Your task to perform on an android device: Clear the shopping cart on bestbuy.com. Add usb-a to usb-b to the cart on bestbuy.com, then select checkout. Image 0: 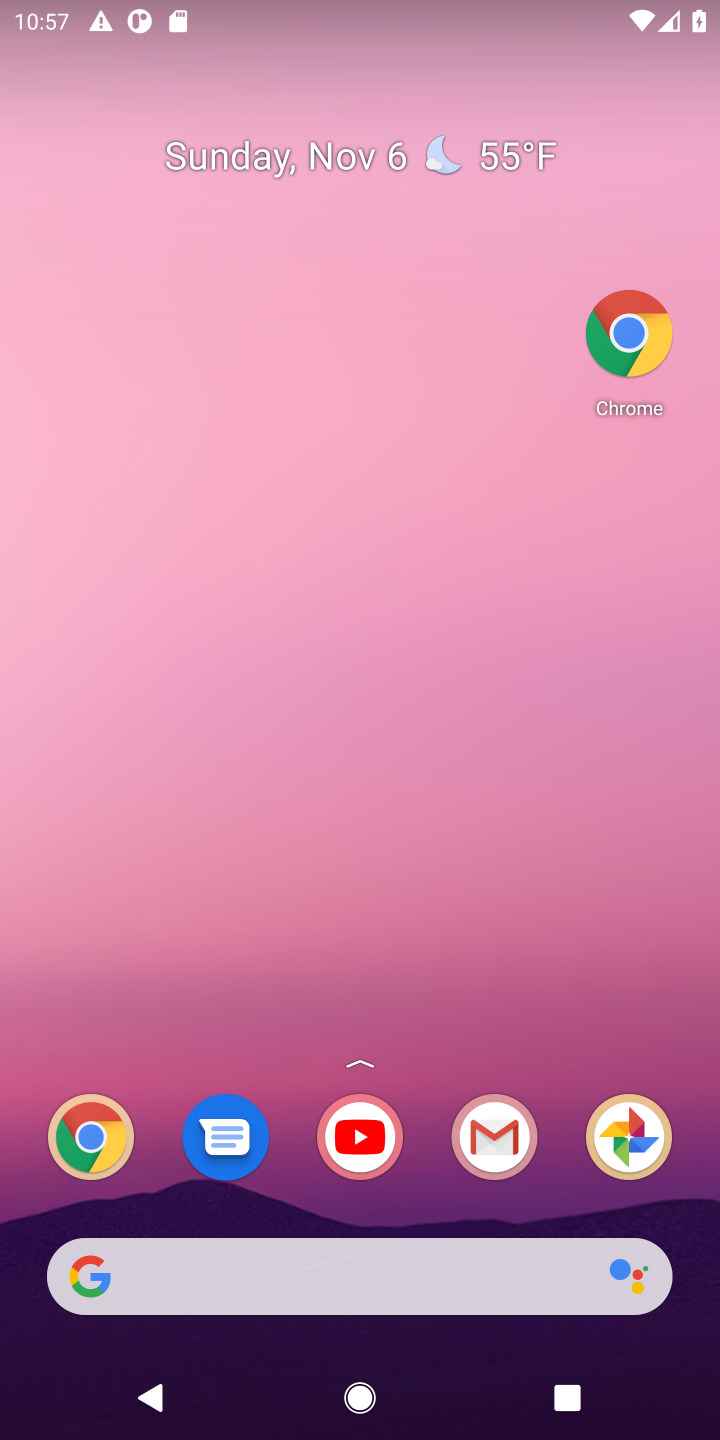
Step 0: drag from (419, 1198) to (437, 922)
Your task to perform on an android device: Clear the shopping cart on bestbuy.com. Add usb-a to usb-b to the cart on bestbuy.com, then select checkout. Image 1: 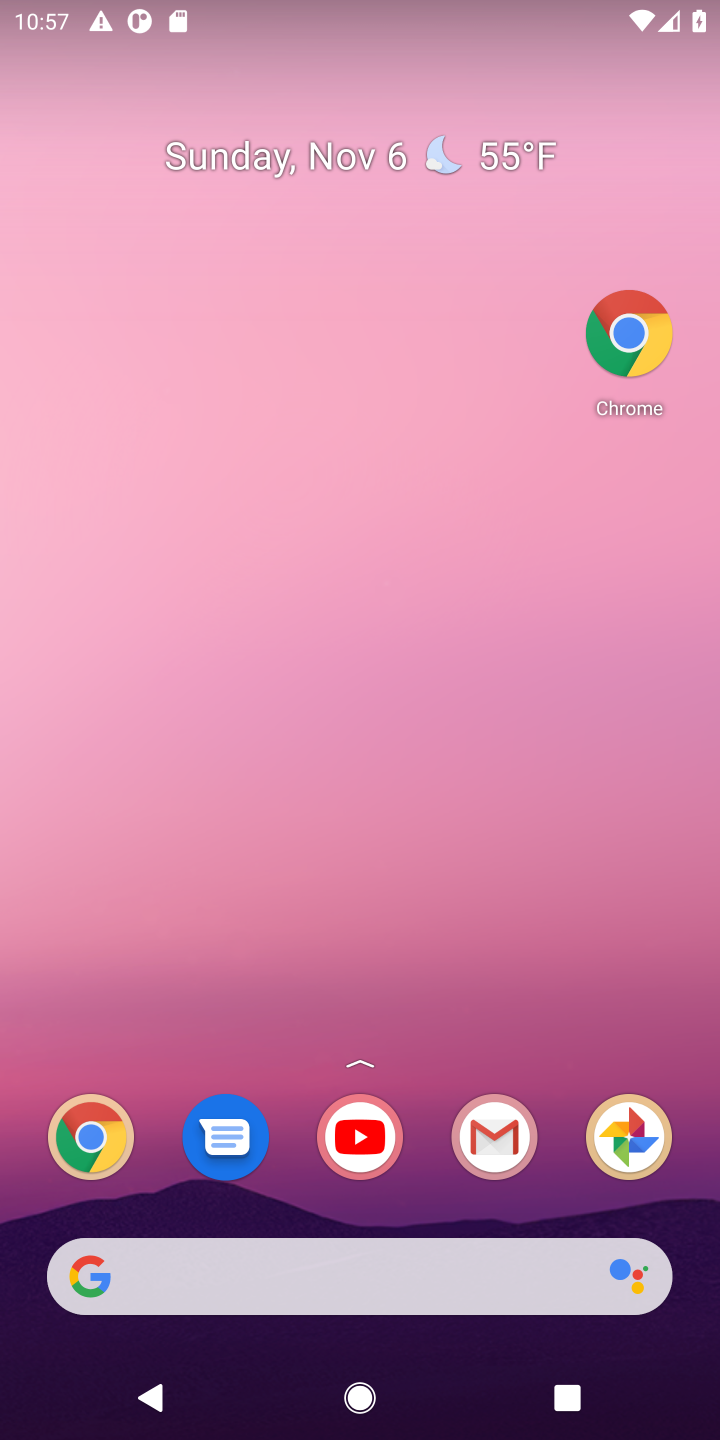
Step 1: drag from (399, 1116) to (178, 266)
Your task to perform on an android device: Clear the shopping cart on bestbuy.com. Add usb-a to usb-b to the cart on bestbuy.com, then select checkout. Image 2: 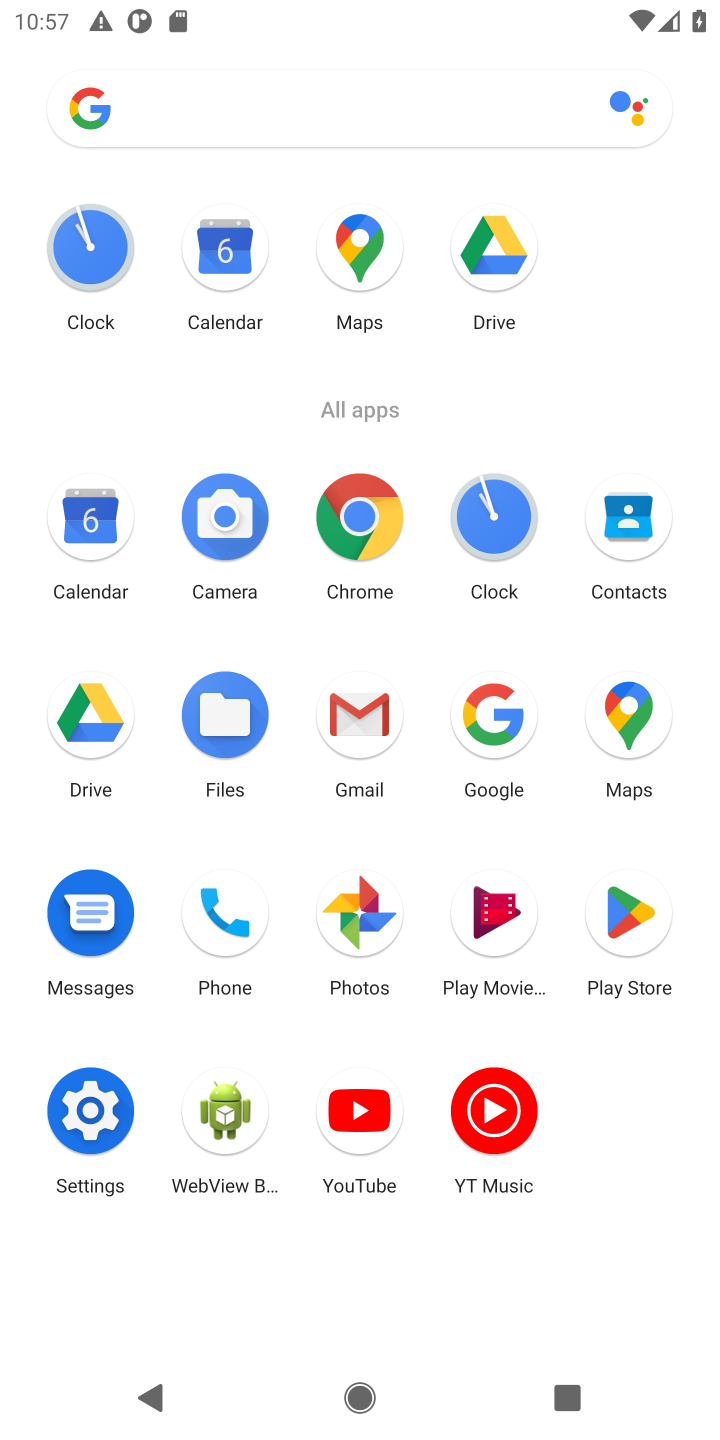
Step 2: click (359, 527)
Your task to perform on an android device: Clear the shopping cart on bestbuy.com. Add usb-a to usb-b to the cart on bestbuy.com, then select checkout. Image 3: 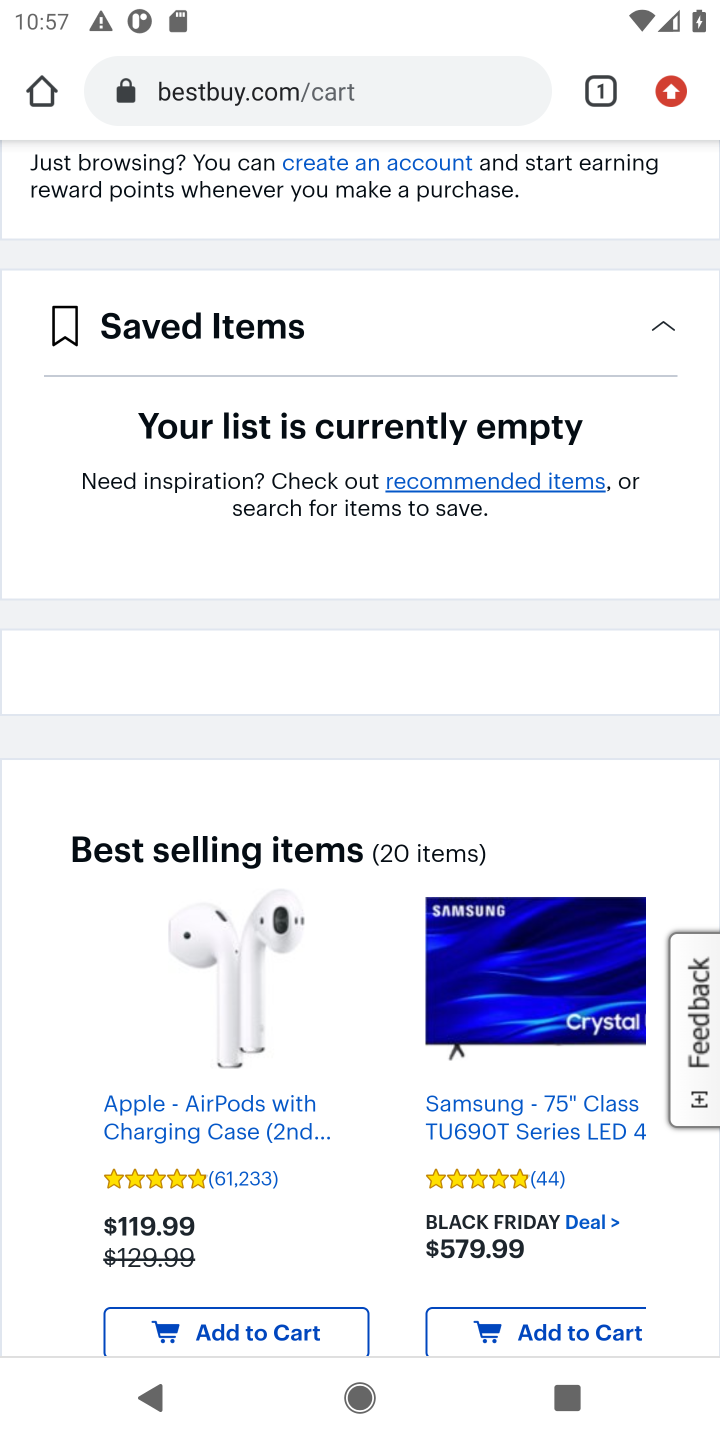
Step 3: drag from (402, 260) to (305, 715)
Your task to perform on an android device: Clear the shopping cart on bestbuy.com. Add usb-a to usb-b to the cart on bestbuy.com, then select checkout. Image 4: 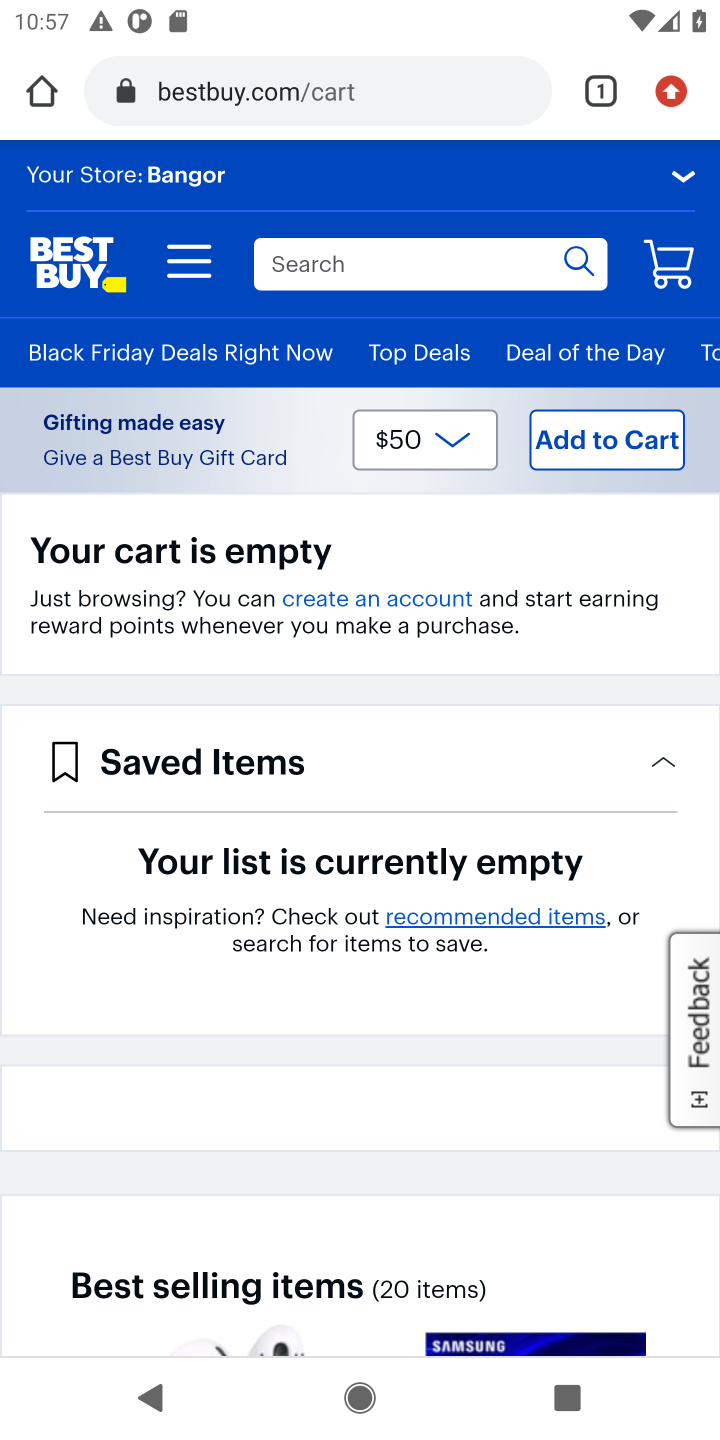
Step 4: click (690, 257)
Your task to perform on an android device: Clear the shopping cart on bestbuy.com. Add usb-a to usb-b to the cart on bestbuy.com, then select checkout. Image 5: 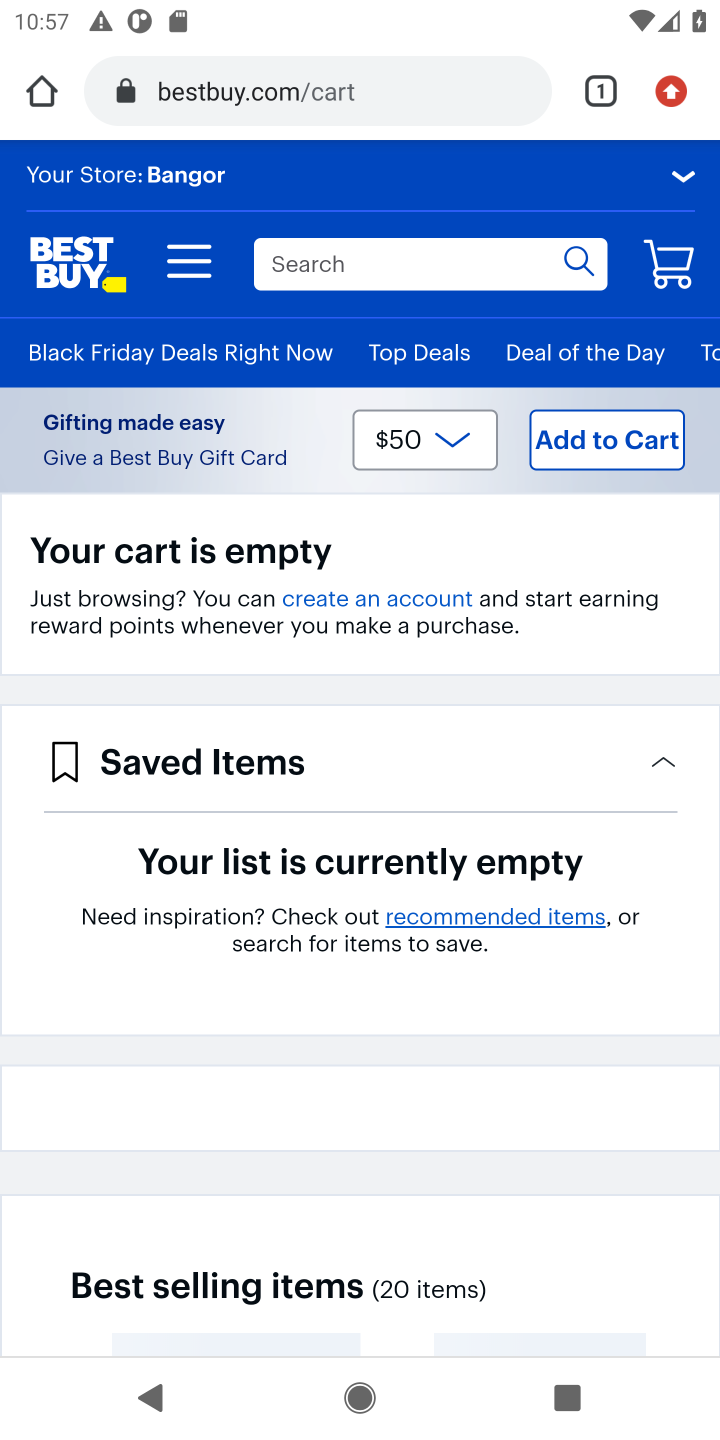
Step 5: drag from (254, 1162) to (317, 997)
Your task to perform on an android device: Clear the shopping cart on bestbuy.com. Add usb-a to usb-b to the cart on bestbuy.com, then select checkout. Image 6: 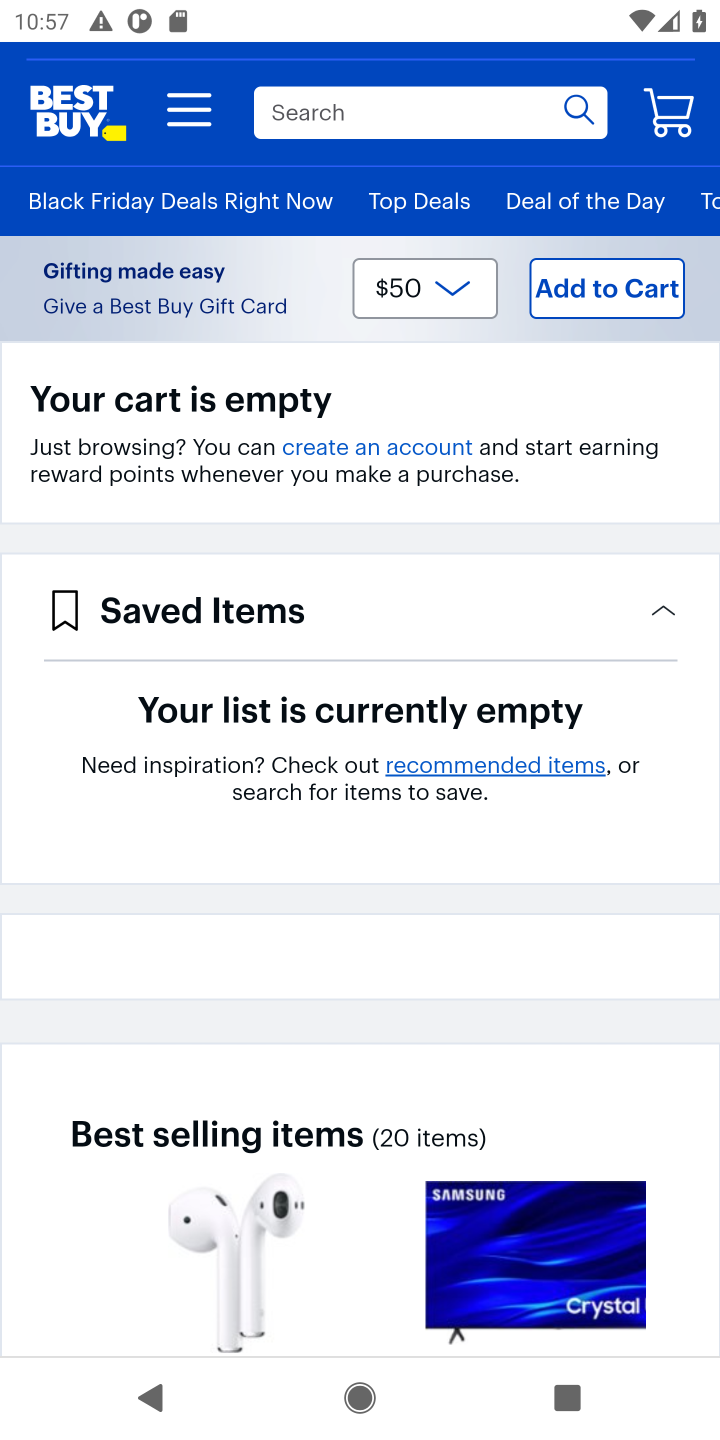
Step 6: click (350, 111)
Your task to perform on an android device: Clear the shopping cart on bestbuy.com. Add usb-a to usb-b to the cart on bestbuy.com, then select checkout. Image 7: 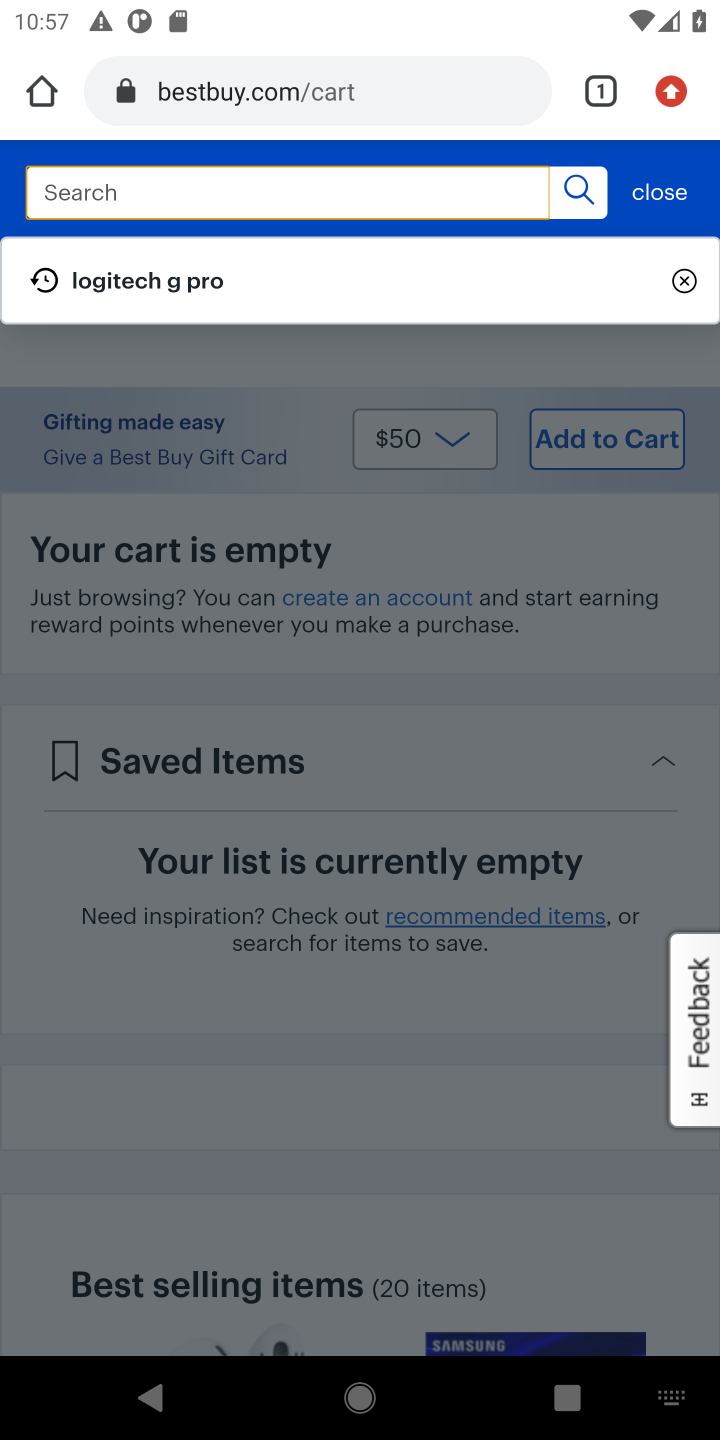
Step 7: type "usb-a to usb-b"
Your task to perform on an android device: Clear the shopping cart on bestbuy.com. Add usb-a to usb-b to the cart on bestbuy.com, then select checkout. Image 8: 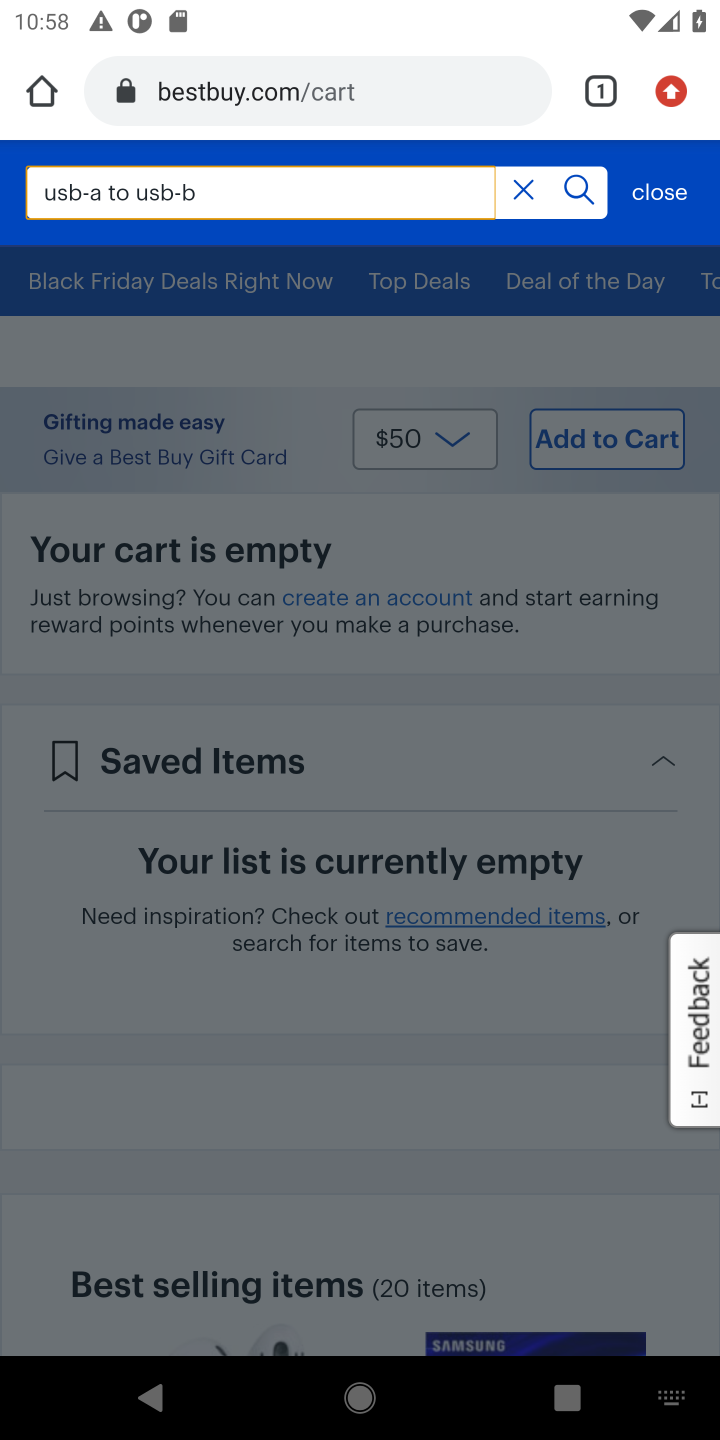
Step 8: press enter
Your task to perform on an android device: Clear the shopping cart on bestbuy.com. Add usb-a to usb-b to the cart on bestbuy.com, then select checkout. Image 9: 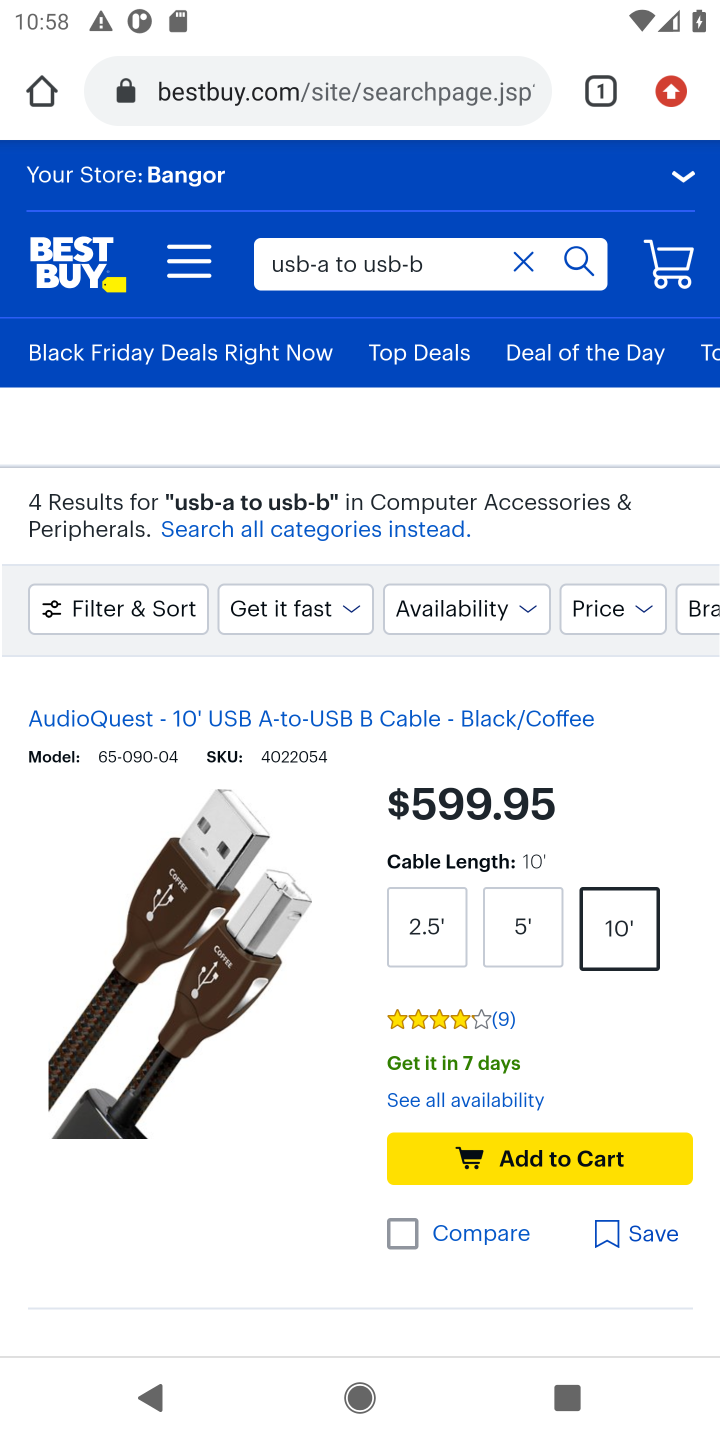
Step 9: click (488, 1171)
Your task to perform on an android device: Clear the shopping cart on bestbuy.com. Add usb-a to usb-b to the cart on bestbuy.com, then select checkout. Image 10: 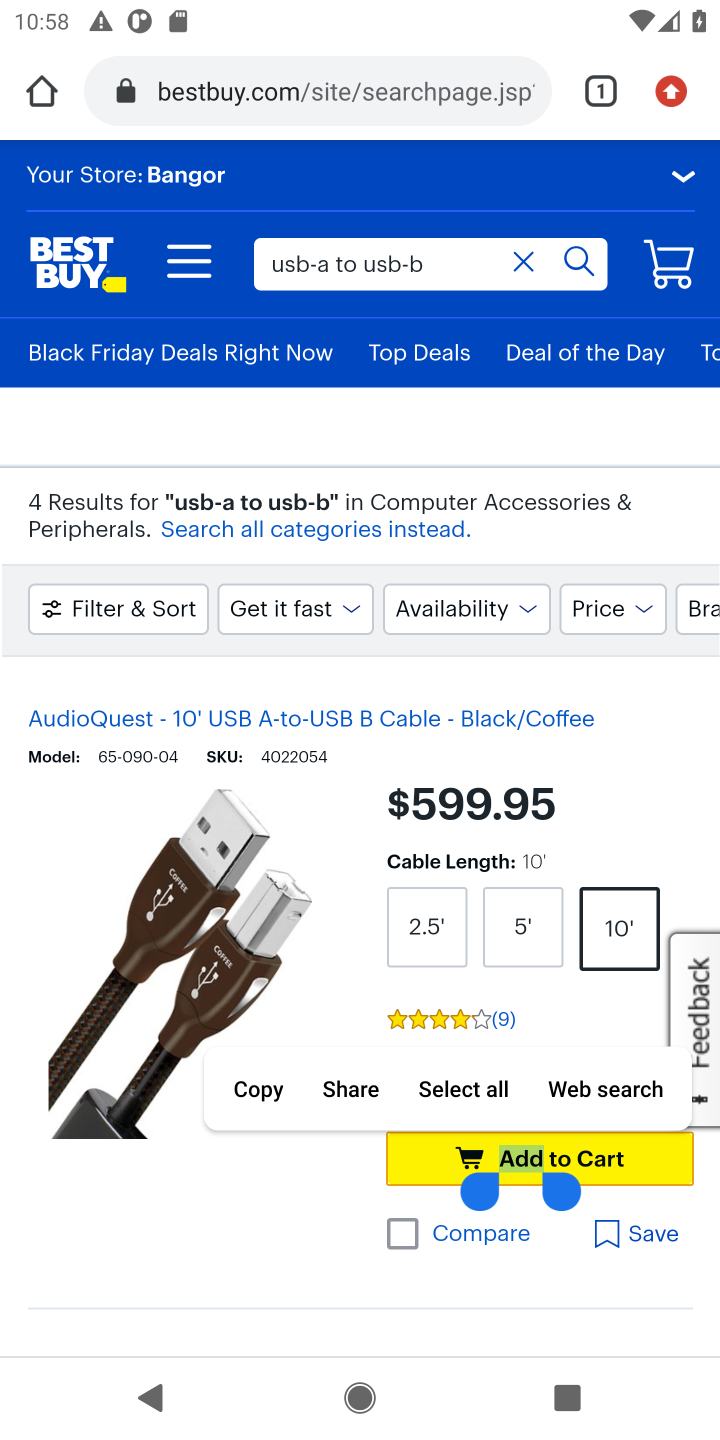
Step 10: click (458, 1153)
Your task to perform on an android device: Clear the shopping cart on bestbuy.com. Add usb-a to usb-b to the cart on bestbuy.com, then select checkout. Image 11: 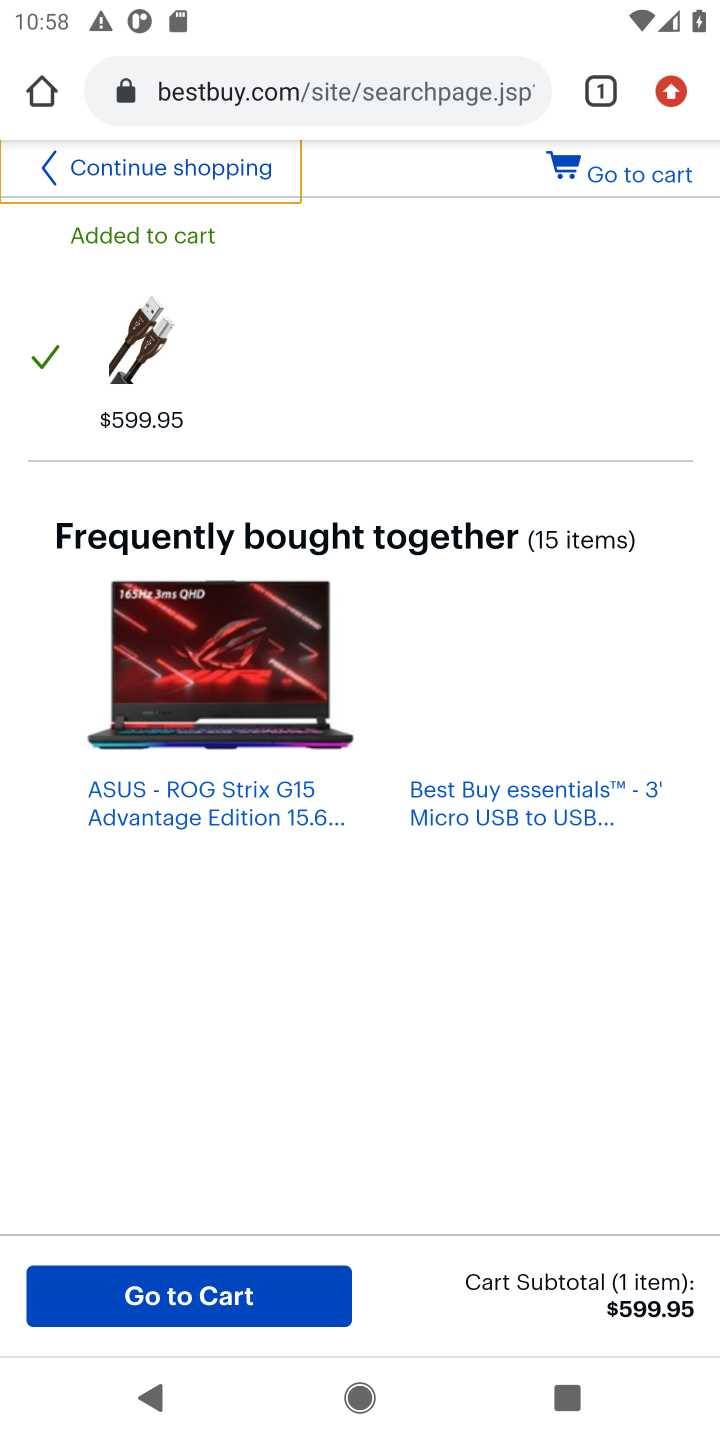
Step 11: click (227, 1283)
Your task to perform on an android device: Clear the shopping cart on bestbuy.com. Add usb-a to usb-b to the cart on bestbuy.com, then select checkout. Image 12: 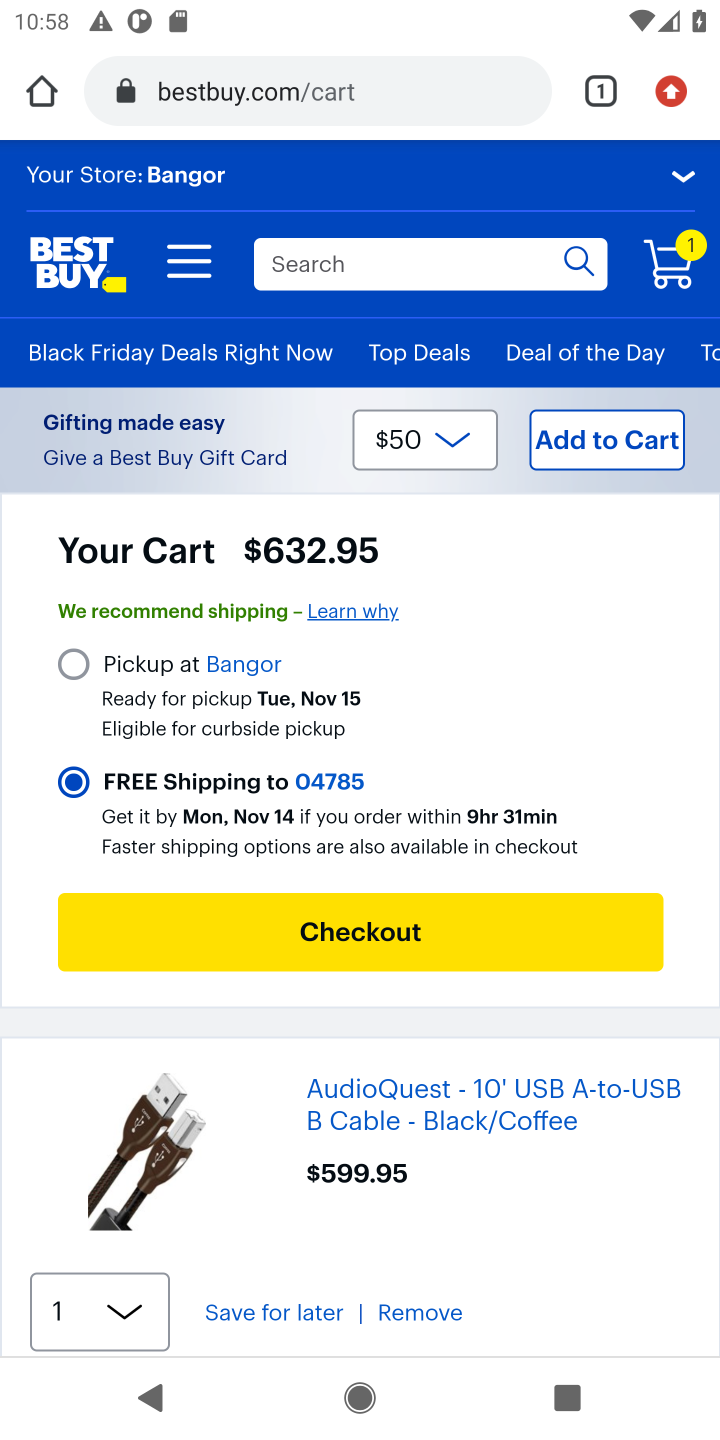
Step 12: click (555, 940)
Your task to perform on an android device: Clear the shopping cart on bestbuy.com. Add usb-a to usb-b to the cart on bestbuy.com, then select checkout. Image 13: 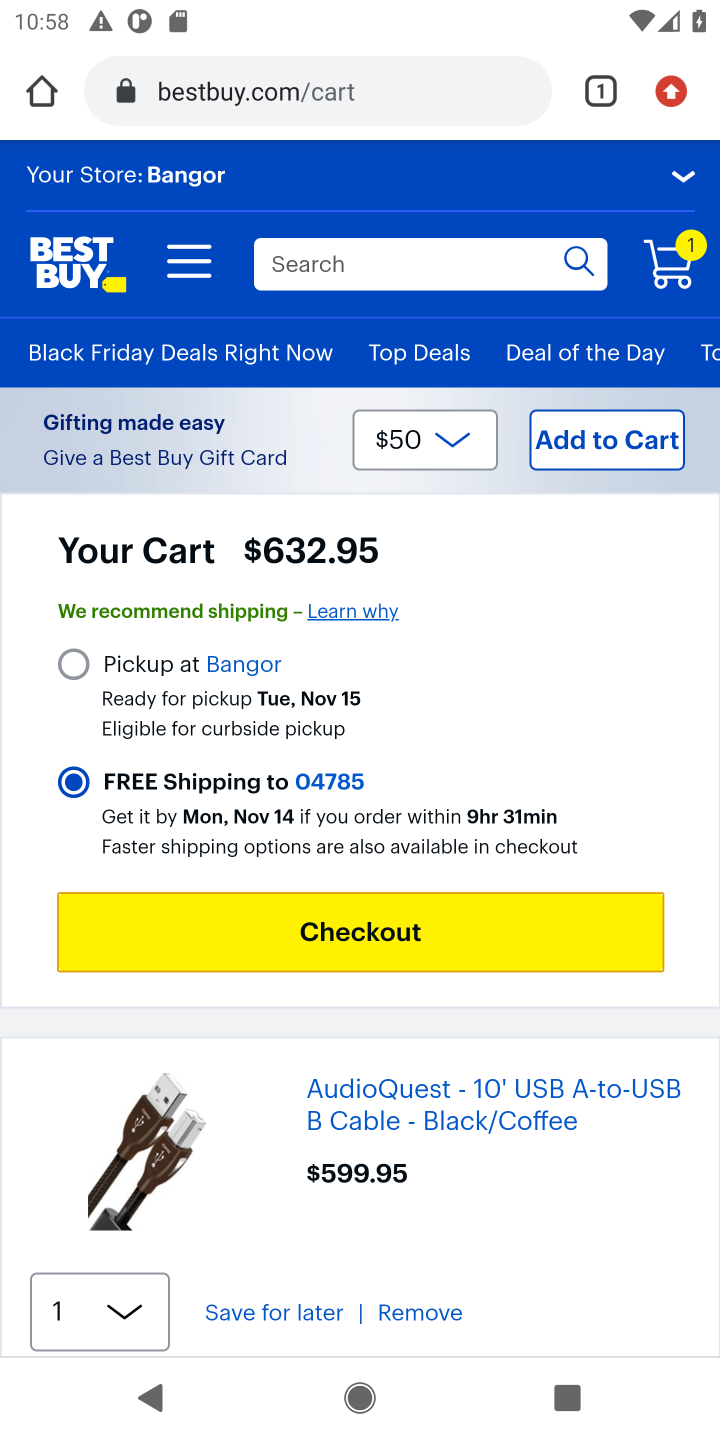
Step 13: click (424, 935)
Your task to perform on an android device: Clear the shopping cart on bestbuy.com. Add usb-a to usb-b to the cart on bestbuy.com, then select checkout. Image 14: 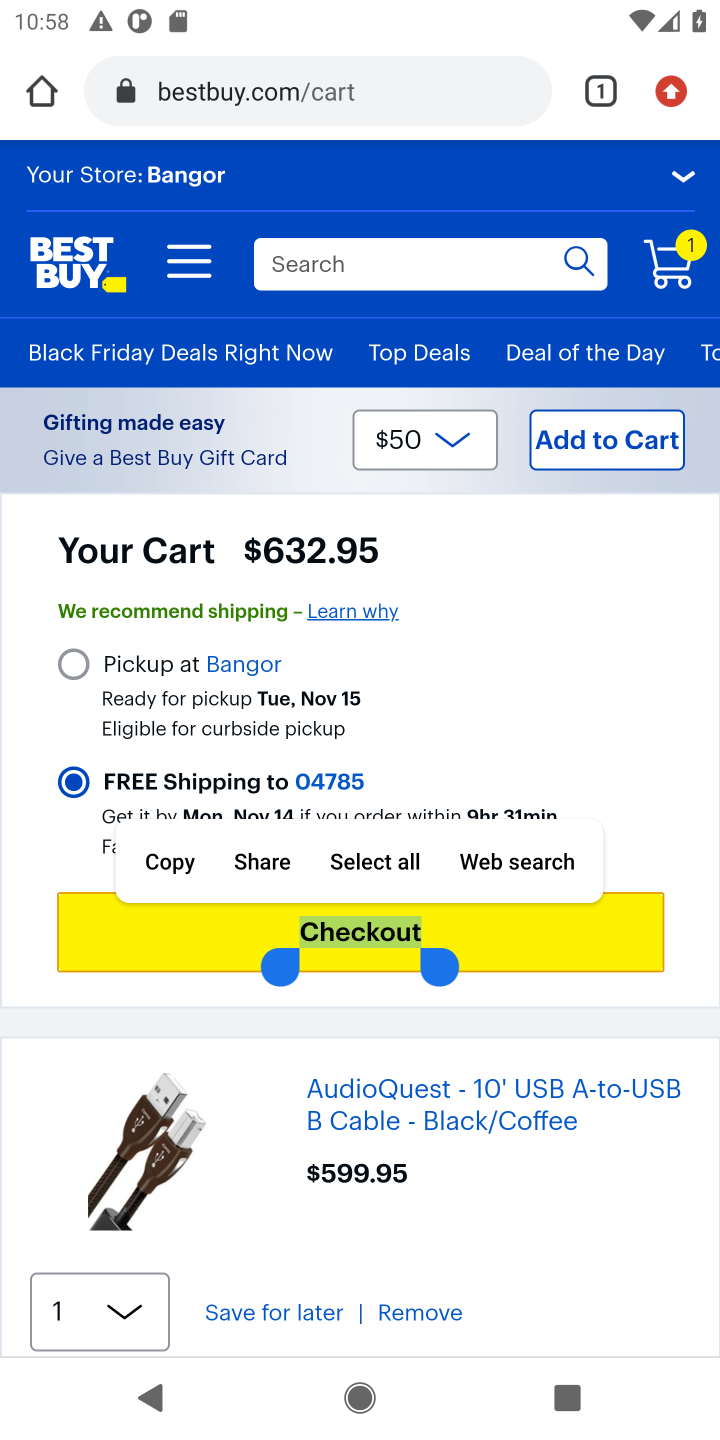
Step 14: click (424, 935)
Your task to perform on an android device: Clear the shopping cart on bestbuy.com. Add usb-a to usb-b to the cart on bestbuy.com, then select checkout. Image 15: 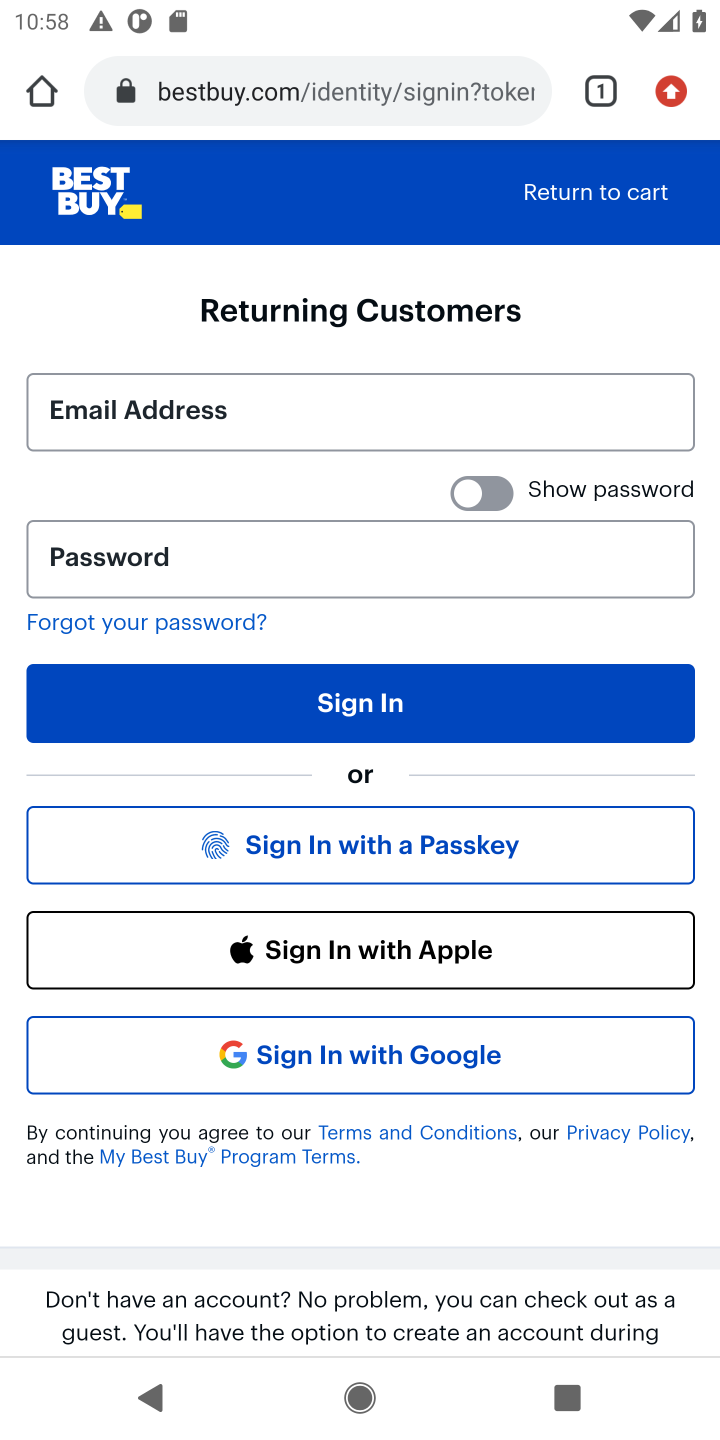
Step 15: task complete